Your task to perform on an android device: Search for sushi restaurants on Maps Image 0: 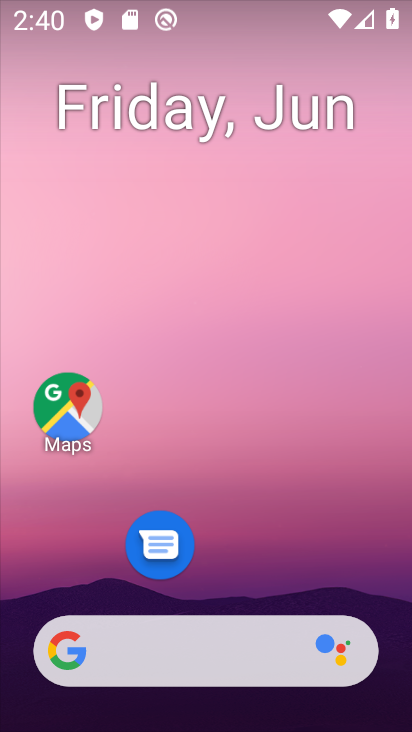
Step 0: drag from (216, 559) to (226, 50)
Your task to perform on an android device: Search for sushi restaurants on Maps Image 1: 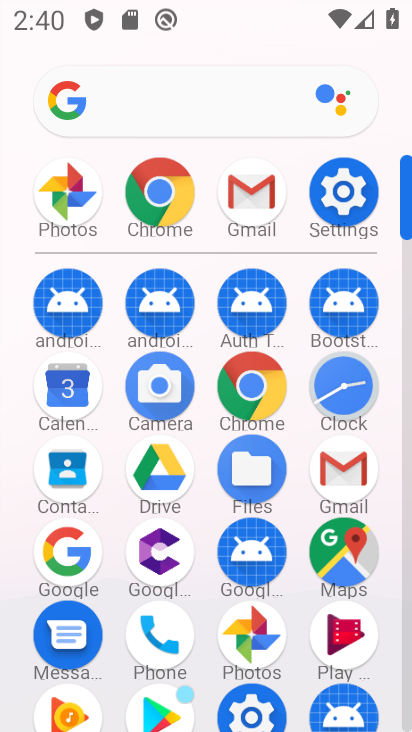
Step 1: click (340, 556)
Your task to perform on an android device: Search for sushi restaurants on Maps Image 2: 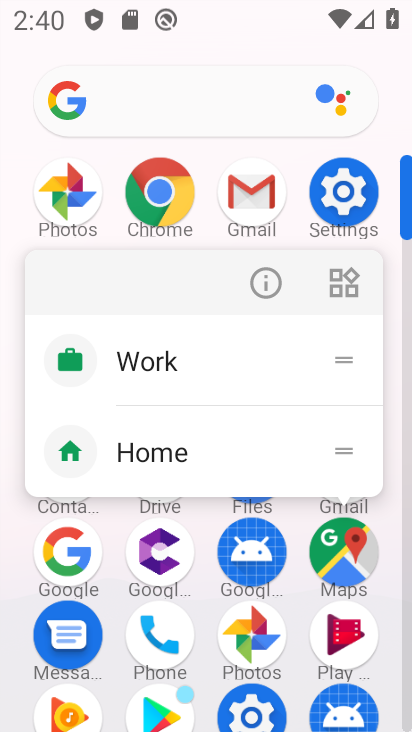
Step 2: click (346, 571)
Your task to perform on an android device: Search for sushi restaurants on Maps Image 3: 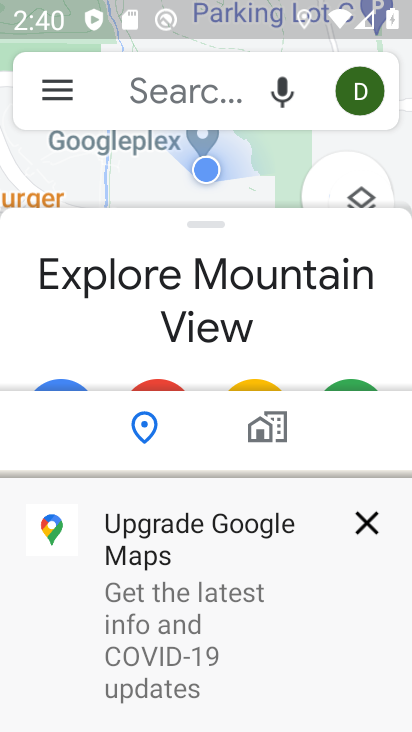
Step 3: click (372, 512)
Your task to perform on an android device: Search for sushi restaurants on Maps Image 4: 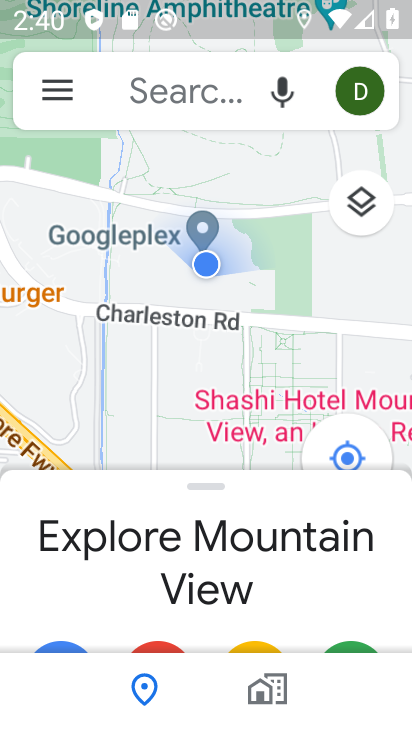
Step 4: click (176, 92)
Your task to perform on an android device: Search for sushi restaurants on Maps Image 5: 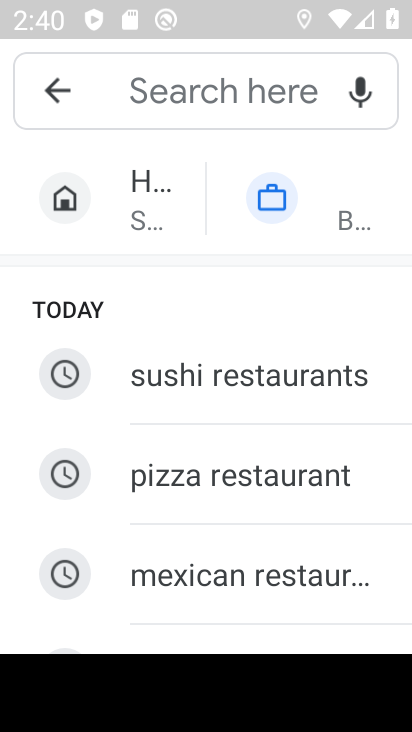
Step 5: type "Sushi restaurants"
Your task to perform on an android device: Search for sushi restaurants on Maps Image 6: 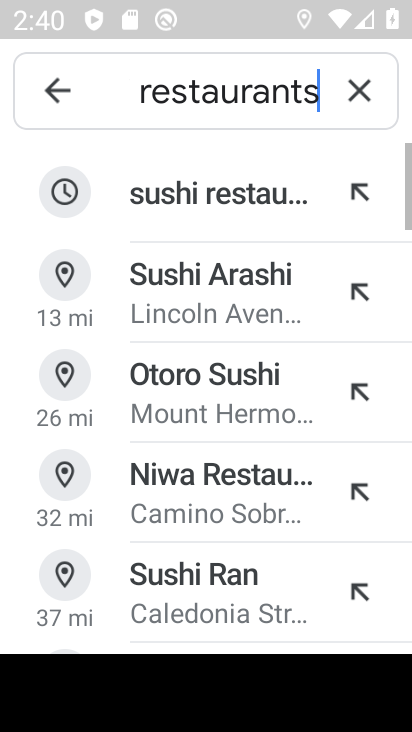
Step 6: click (168, 181)
Your task to perform on an android device: Search for sushi restaurants on Maps Image 7: 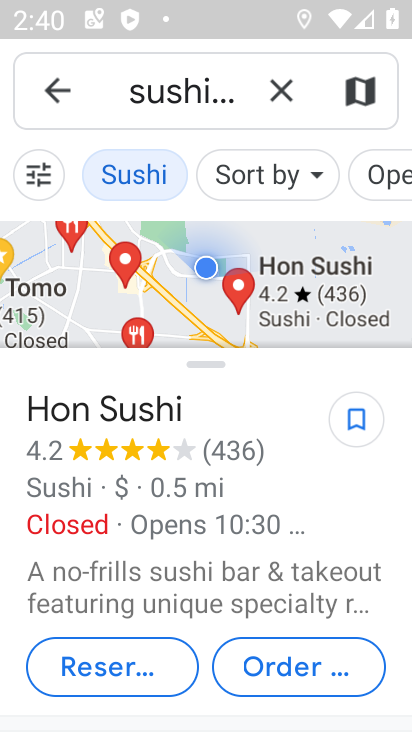
Step 7: task complete